Your task to perform on an android device: see creations saved in the google photos Image 0: 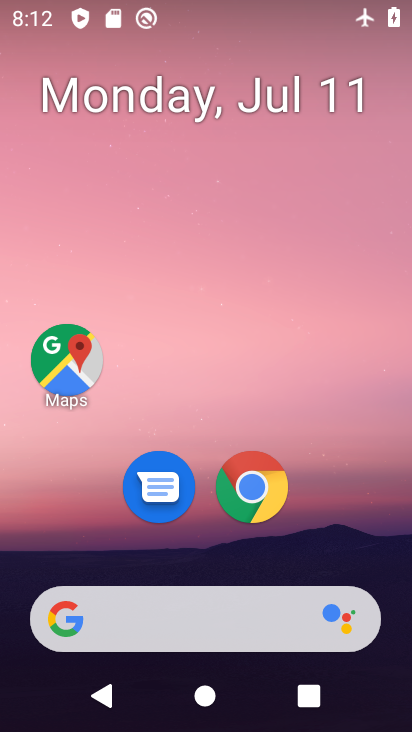
Step 0: drag from (170, 534) to (178, 72)
Your task to perform on an android device: see creations saved in the google photos Image 1: 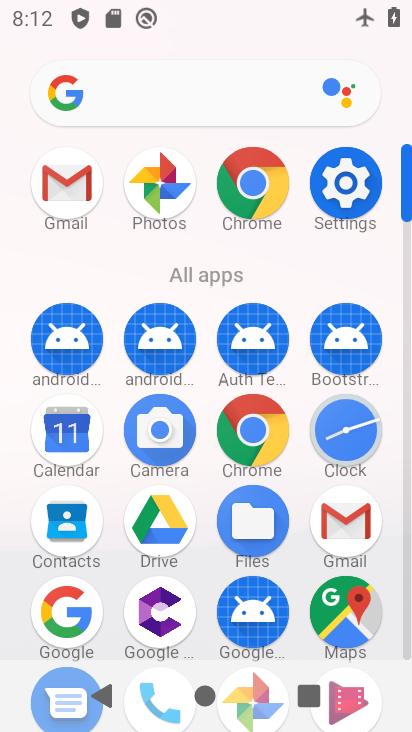
Step 1: drag from (216, 599) to (248, 183)
Your task to perform on an android device: see creations saved in the google photos Image 2: 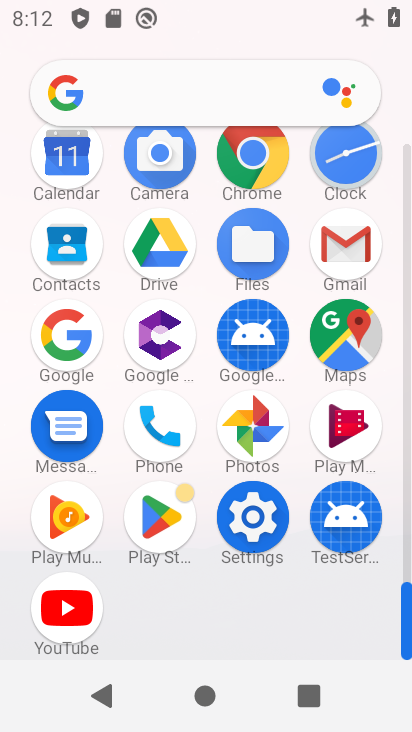
Step 2: click (252, 438)
Your task to perform on an android device: see creations saved in the google photos Image 3: 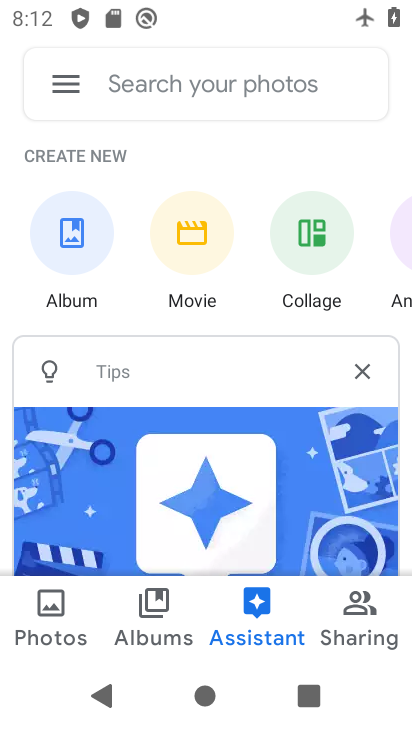
Step 3: click (69, 600)
Your task to perform on an android device: see creations saved in the google photos Image 4: 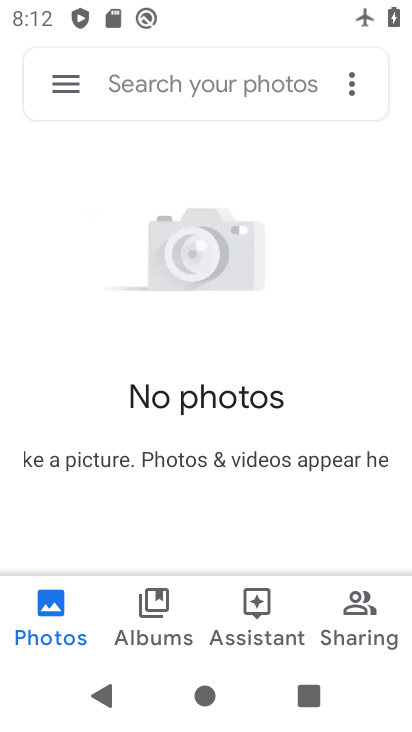
Step 4: task complete